Your task to perform on an android device: Add logitech g502 to the cart on costco.com, then select checkout. Image 0: 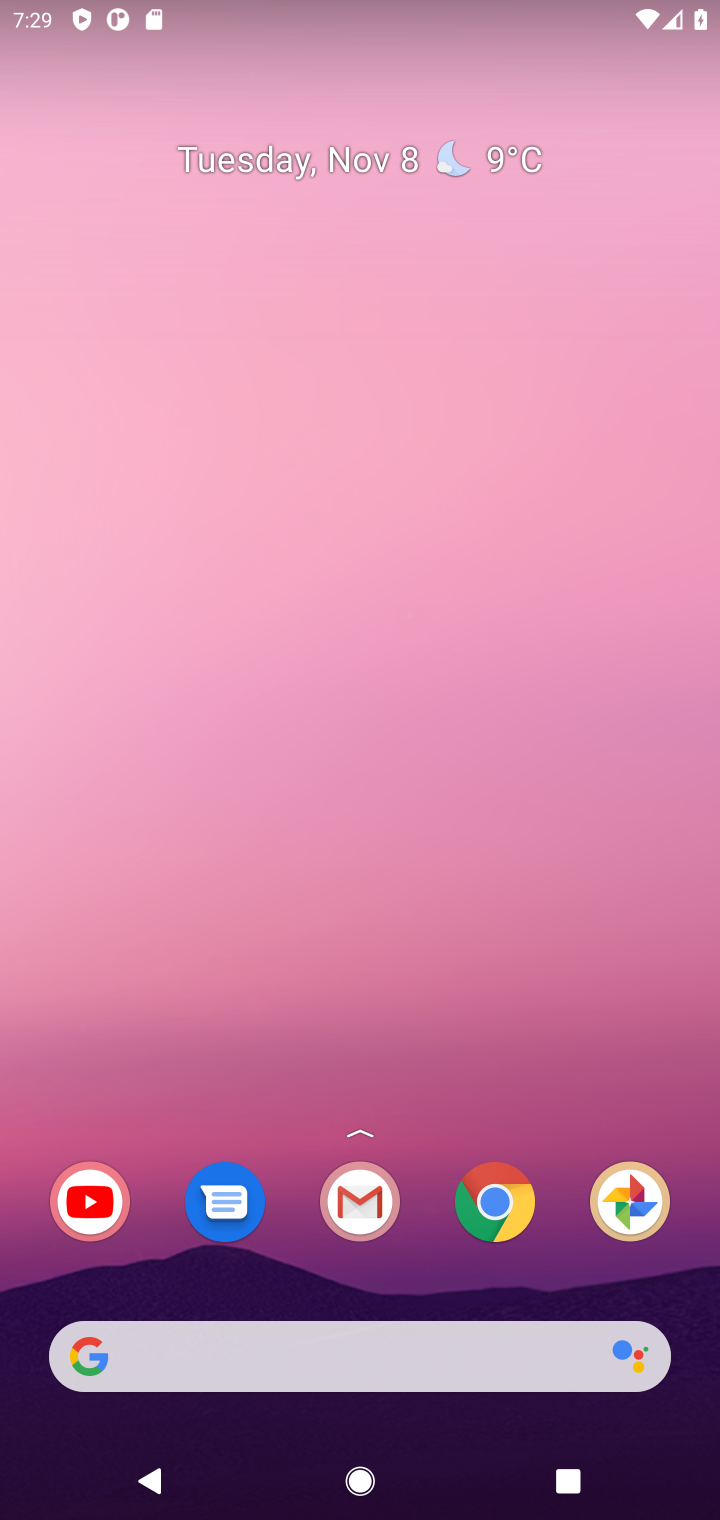
Step 0: click (379, 1354)
Your task to perform on an android device: Add logitech g502 to the cart on costco.com, then select checkout. Image 1: 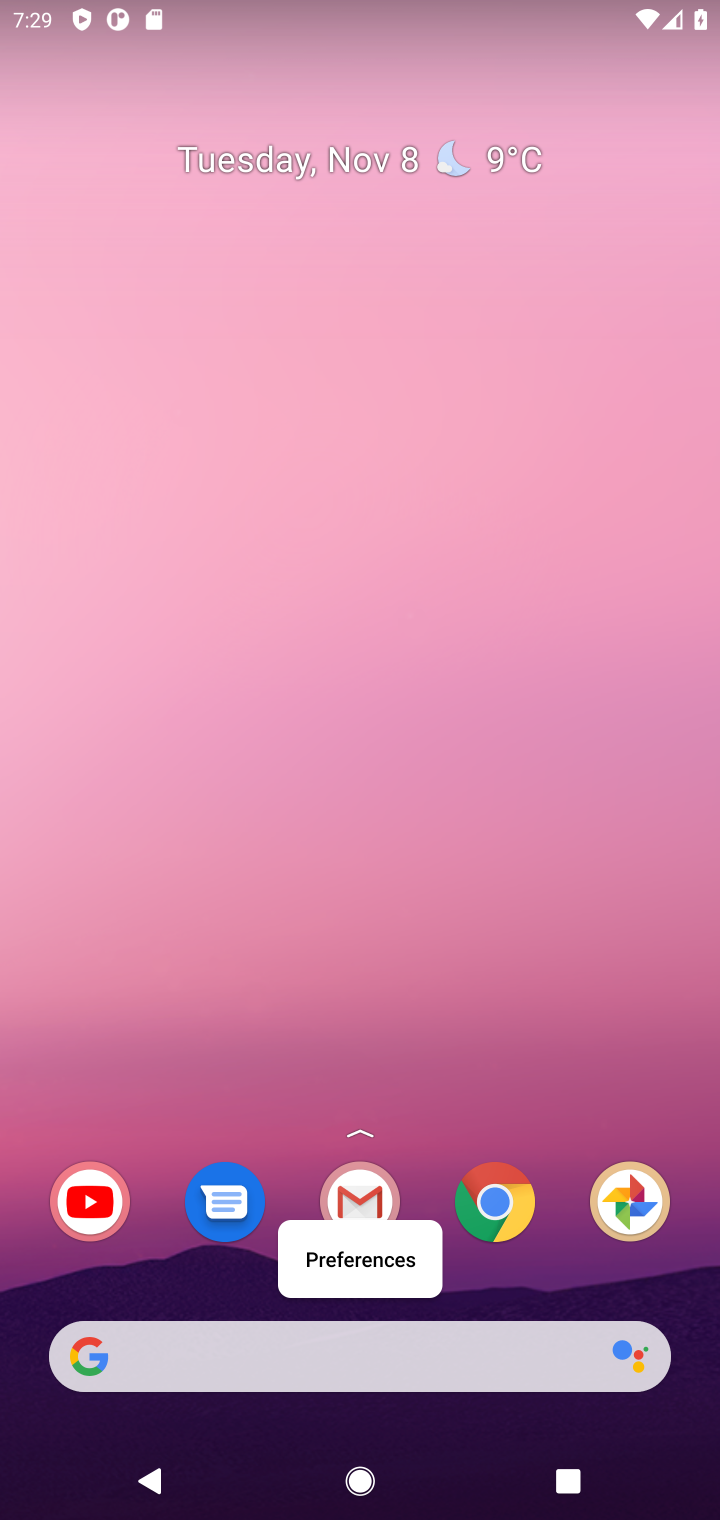
Step 1: click (381, 1359)
Your task to perform on an android device: Add logitech g502 to the cart on costco.com, then select checkout. Image 2: 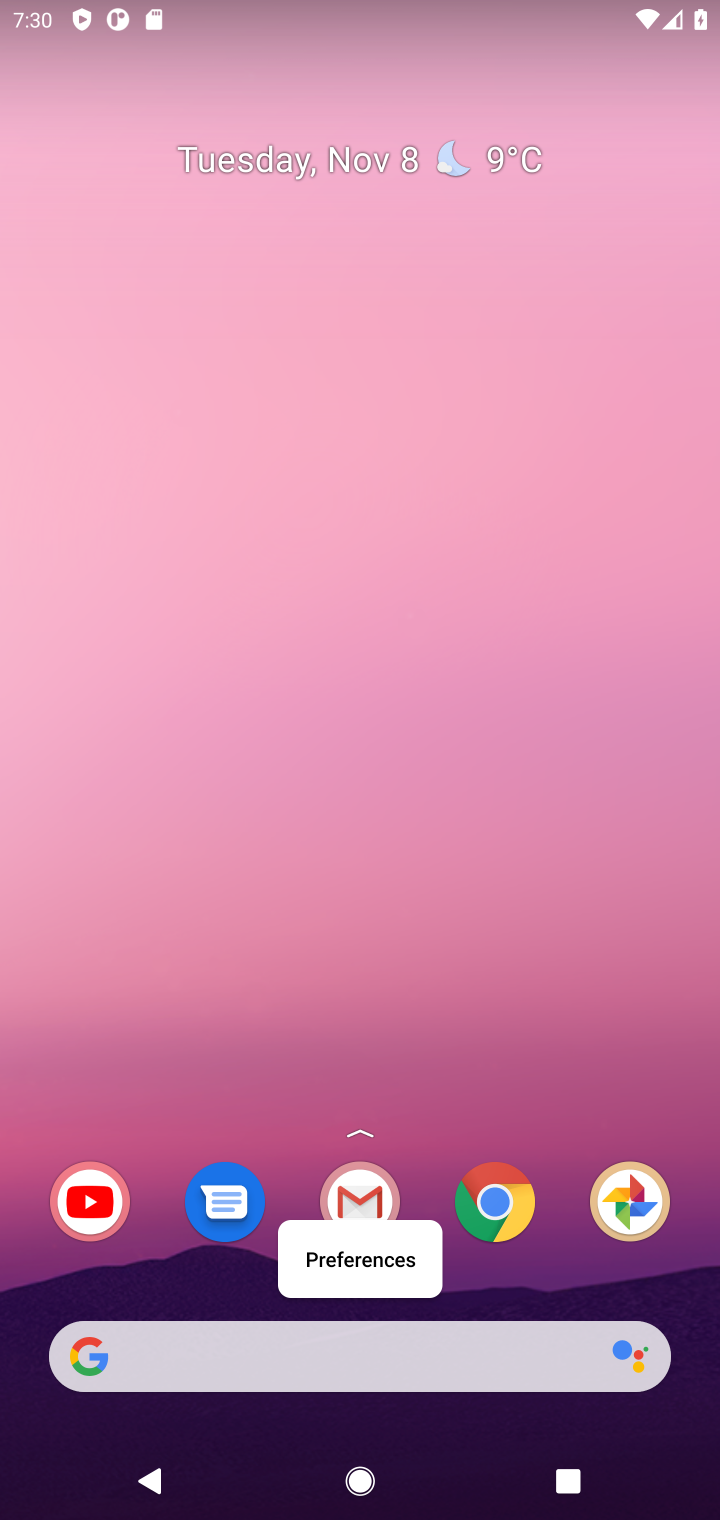
Step 2: click (538, 1359)
Your task to perform on an android device: Add logitech g502 to the cart on costco.com, then select checkout. Image 3: 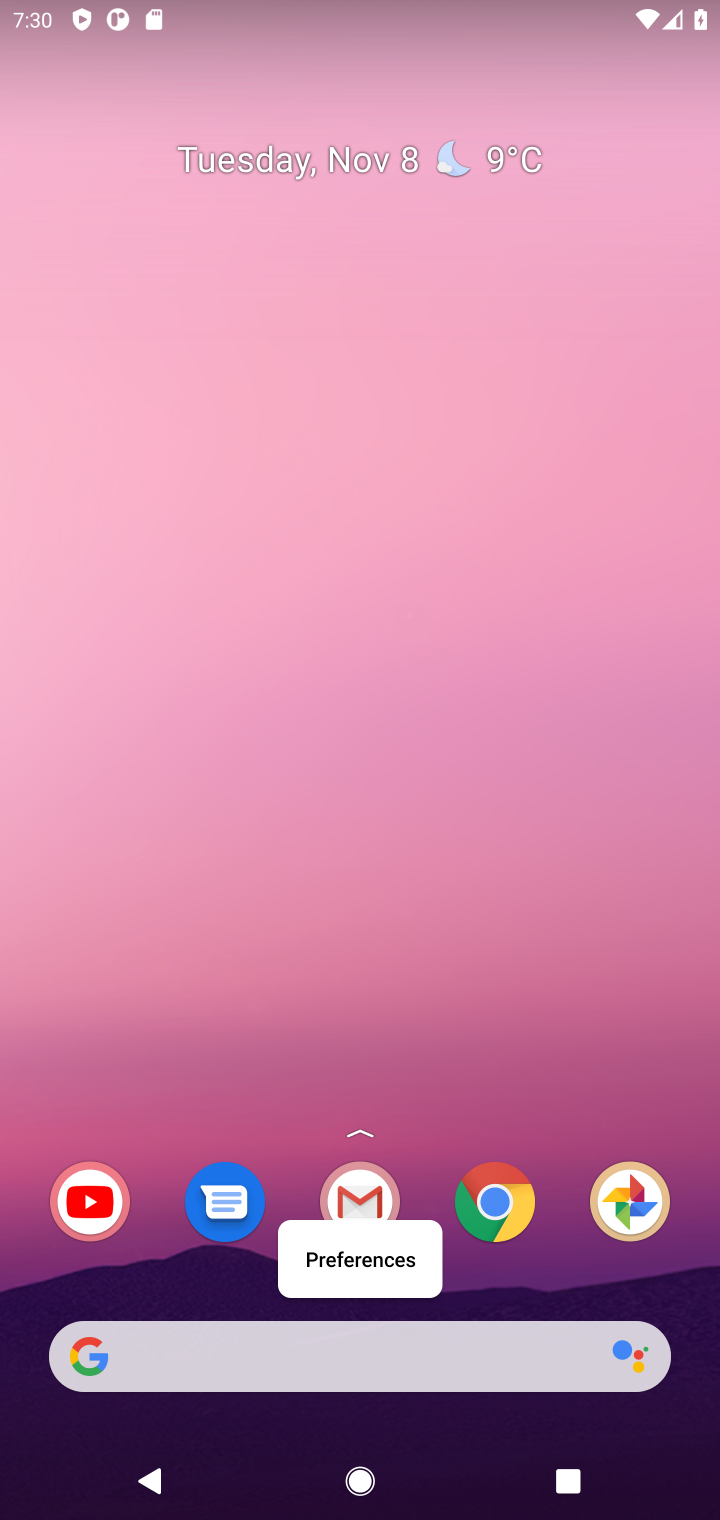
Step 3: click (232, 1368)
Your task to perform on an android device: Add logitech g502 to the cart on costco.com, then select checkout. Image 4: 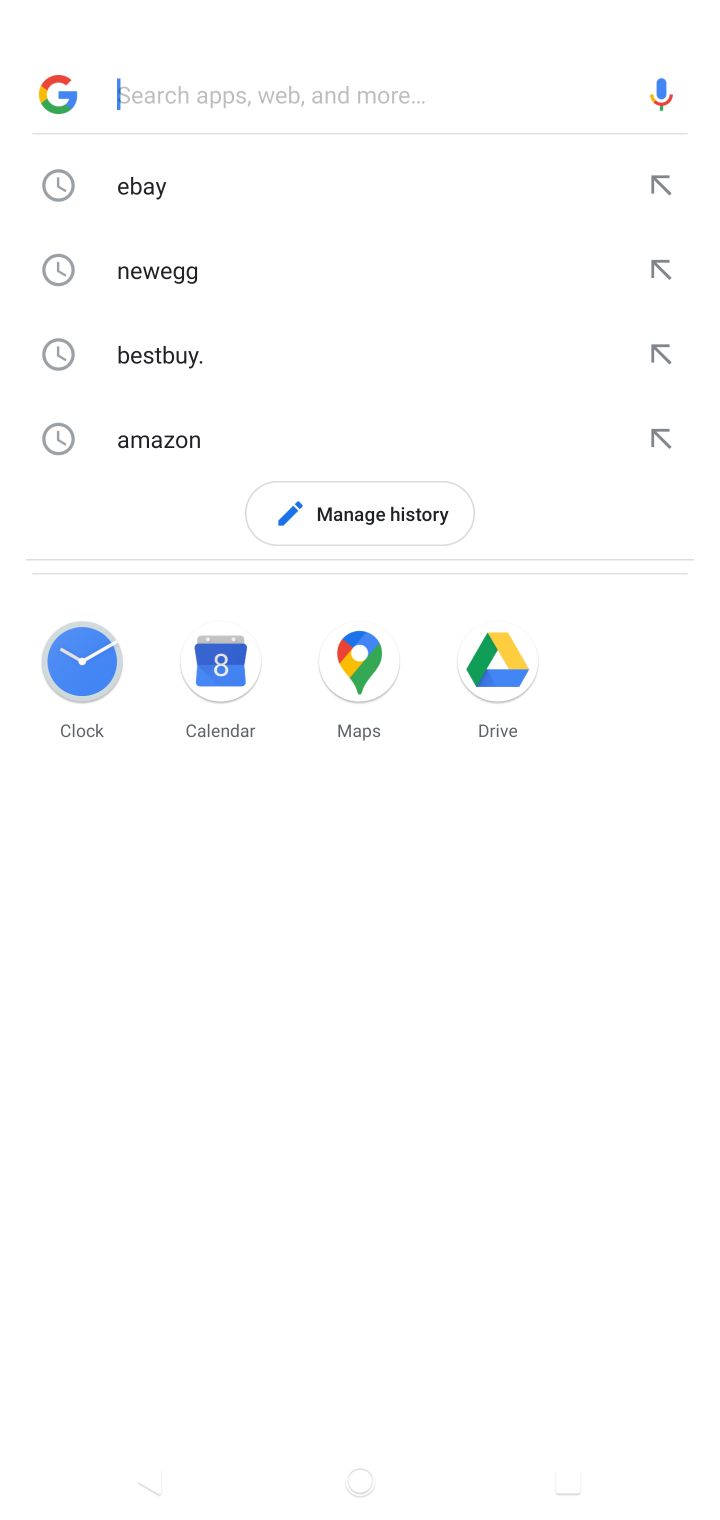
Step 4: click (232, 1368)
Your task to perform on an android device: Add logitech g502 to the cart on costco.com, then select checkout. Image 5: 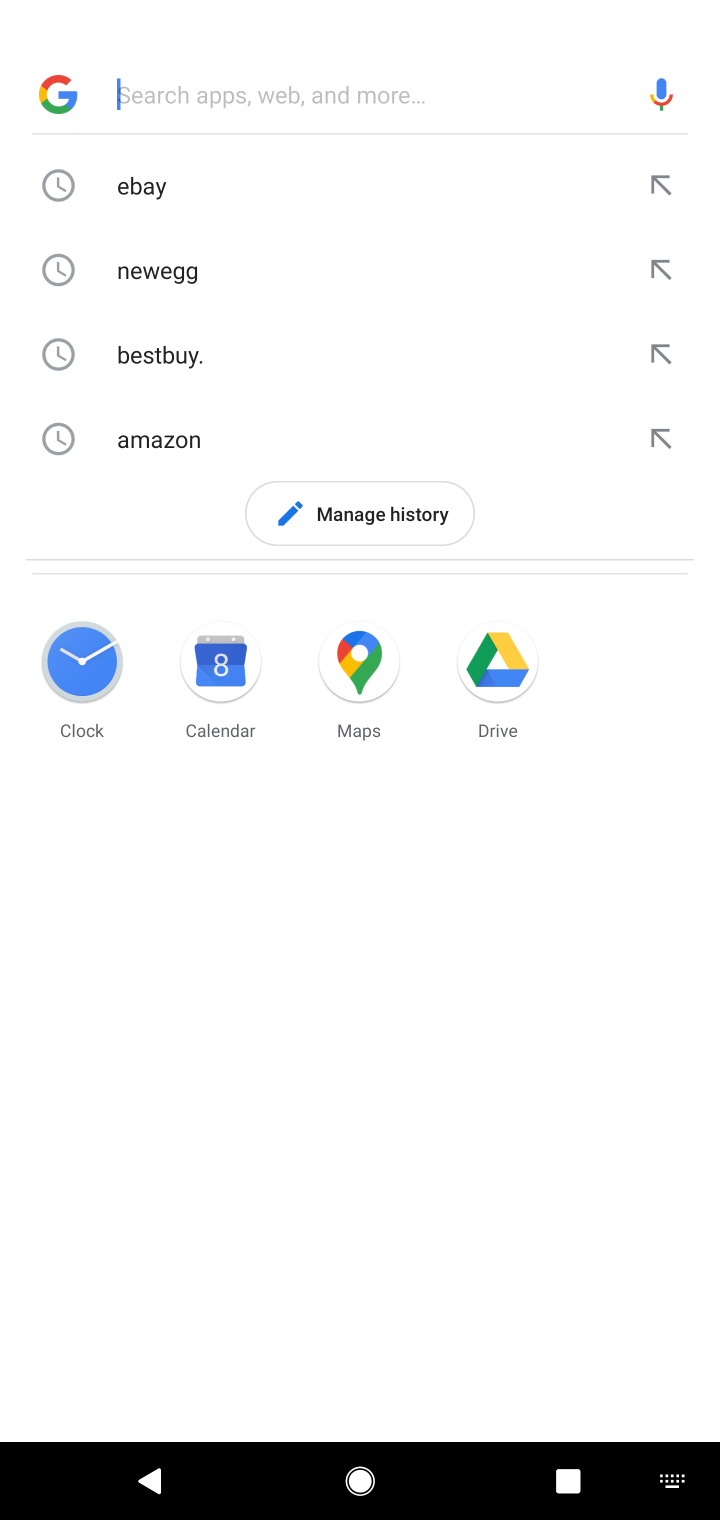
Step 5: type "costco.com"
Your task to perform on an android device: Add logitech g502 to the cart on costco.com, then select checkout. Image 6: 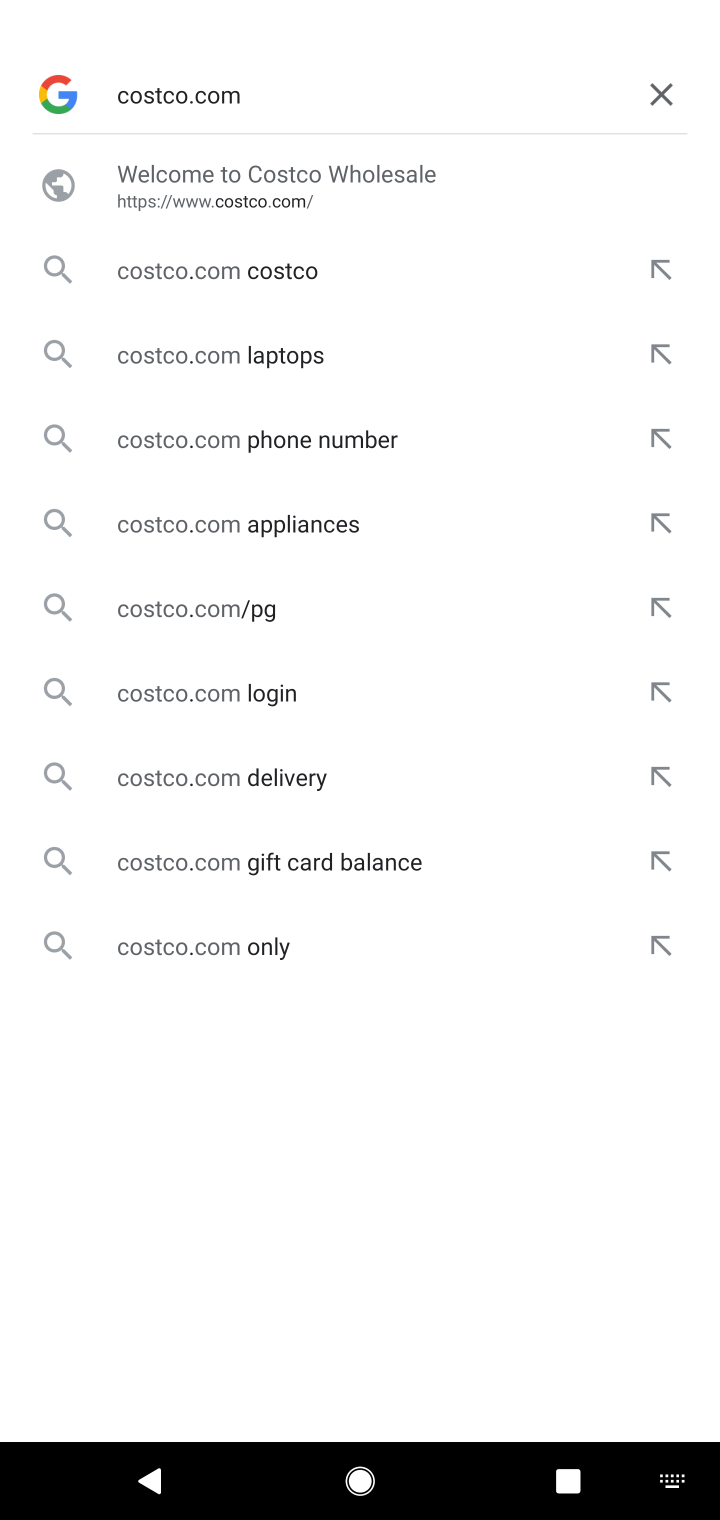
Step 6: type ""
Your task to perform on an android device: Add logitech g502 to the cart on costco.com, then select checkout. Image 7: 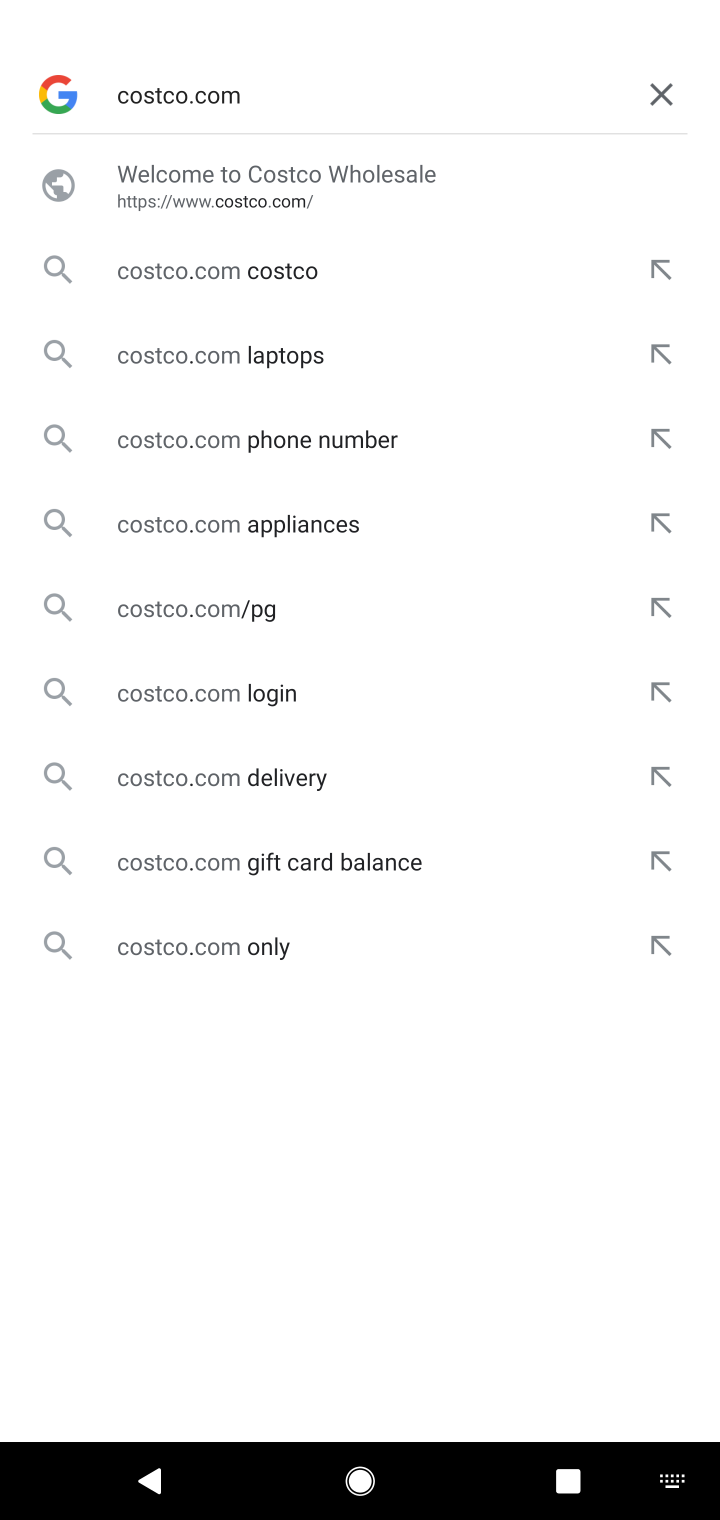
Step 7: press enter
Your task to perform on an android device: Add logitech g502 to the cart on costco.com, then select checkout. Image 8: 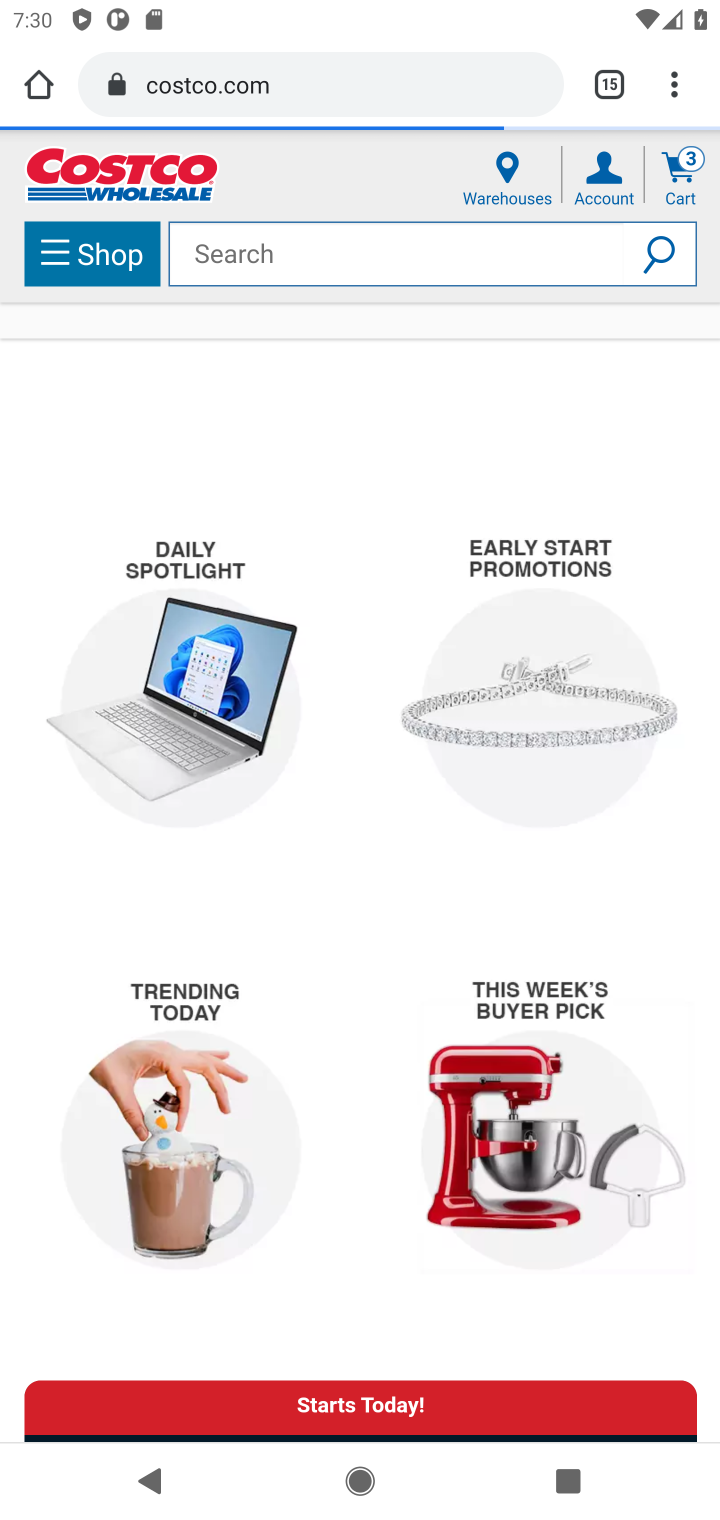
Step 8: click (305, 255)
Your task to perform on an android device: Add logitech g502 to the cart on costco.com, then select checkout. Image 9: 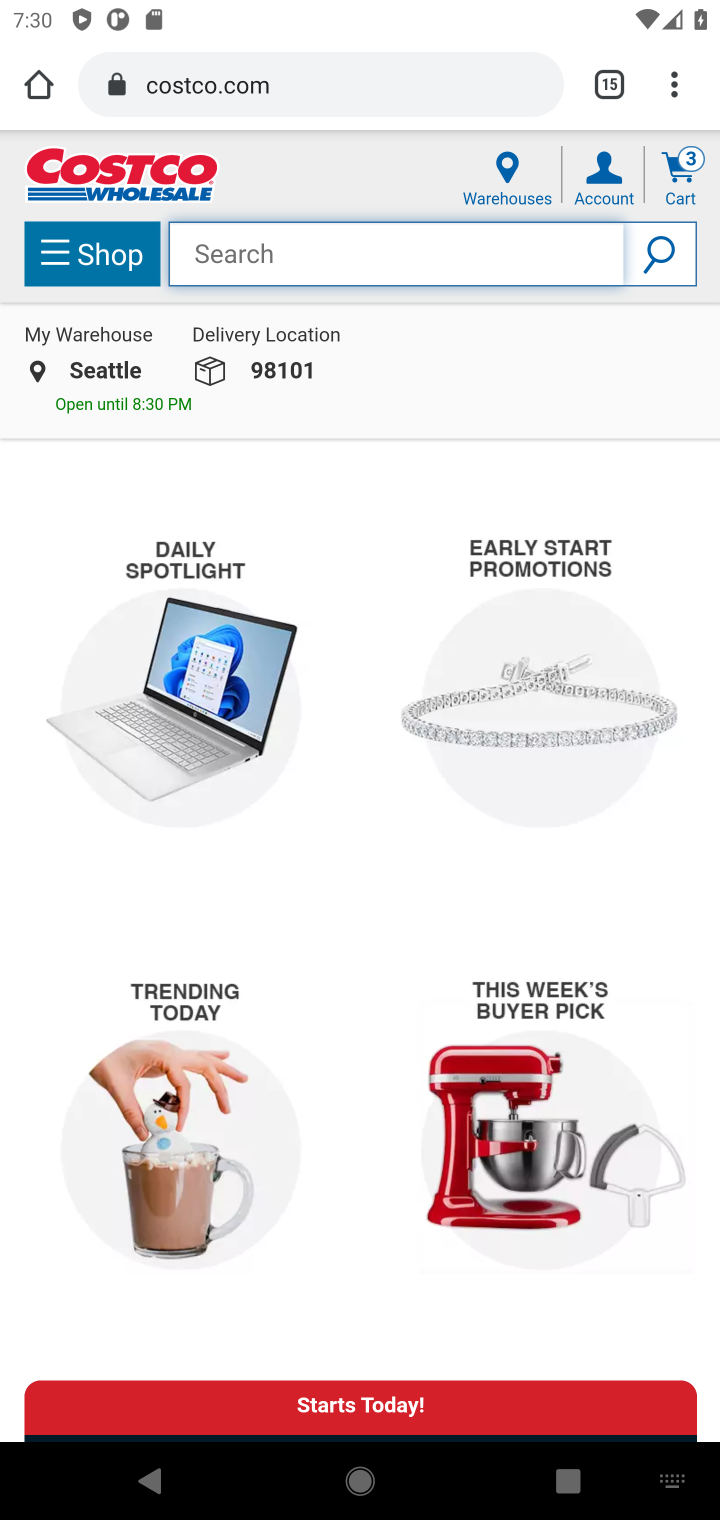
Step 9: drag from (358, 1185) to (369, 192)
Your task to perform on an android device: Add logitech g502 to the cart on costco.com, then select checkout. Image 10: 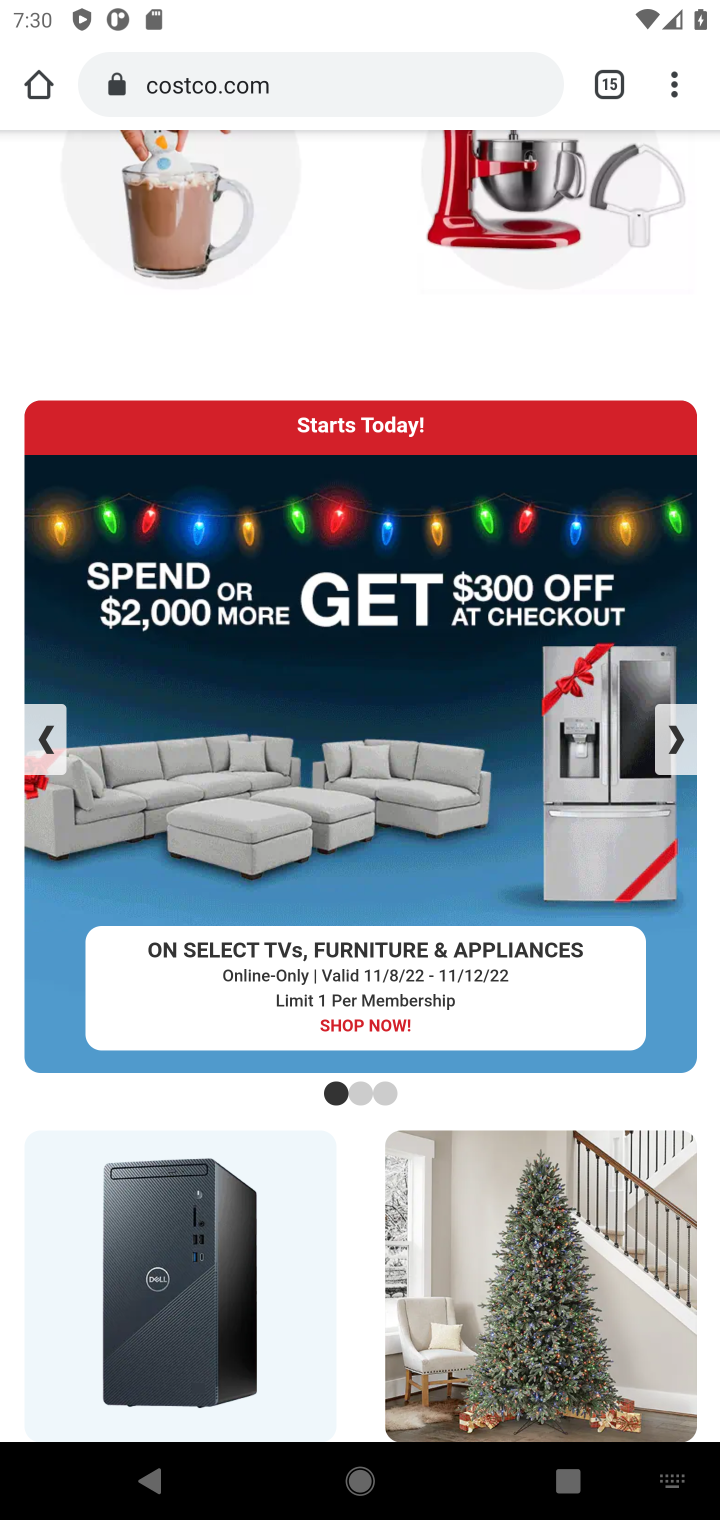
Step 10: drag from (11, 1174) to (12, 441)
Your task to perform on an android device: Add logitech g502 to the cart on costco.com, then select checkout. Image 11: 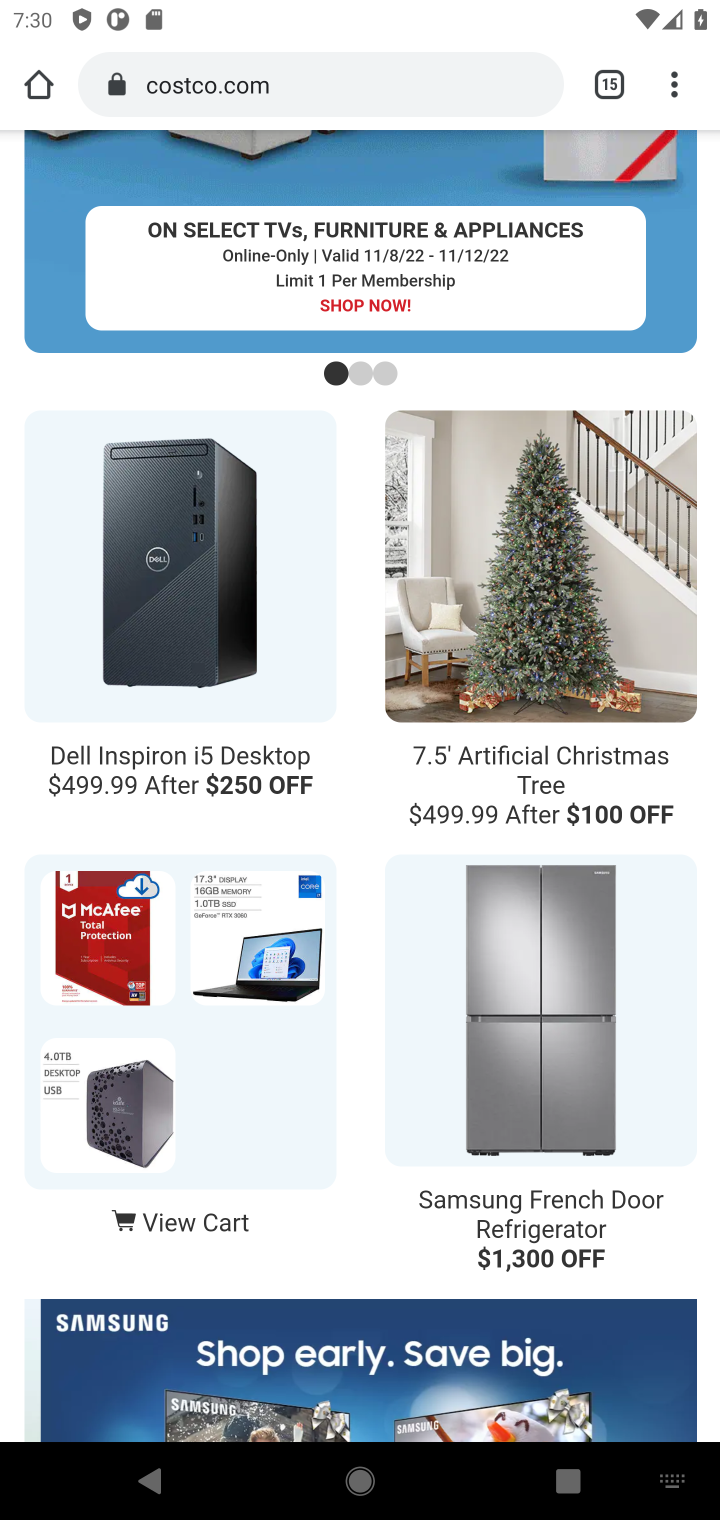
Step 11: drag from (338, 390) to (335, 1347)
Your task to perform on an android device: Add logitech g502 to the cart on costco.com, then select checkout. Image 12: 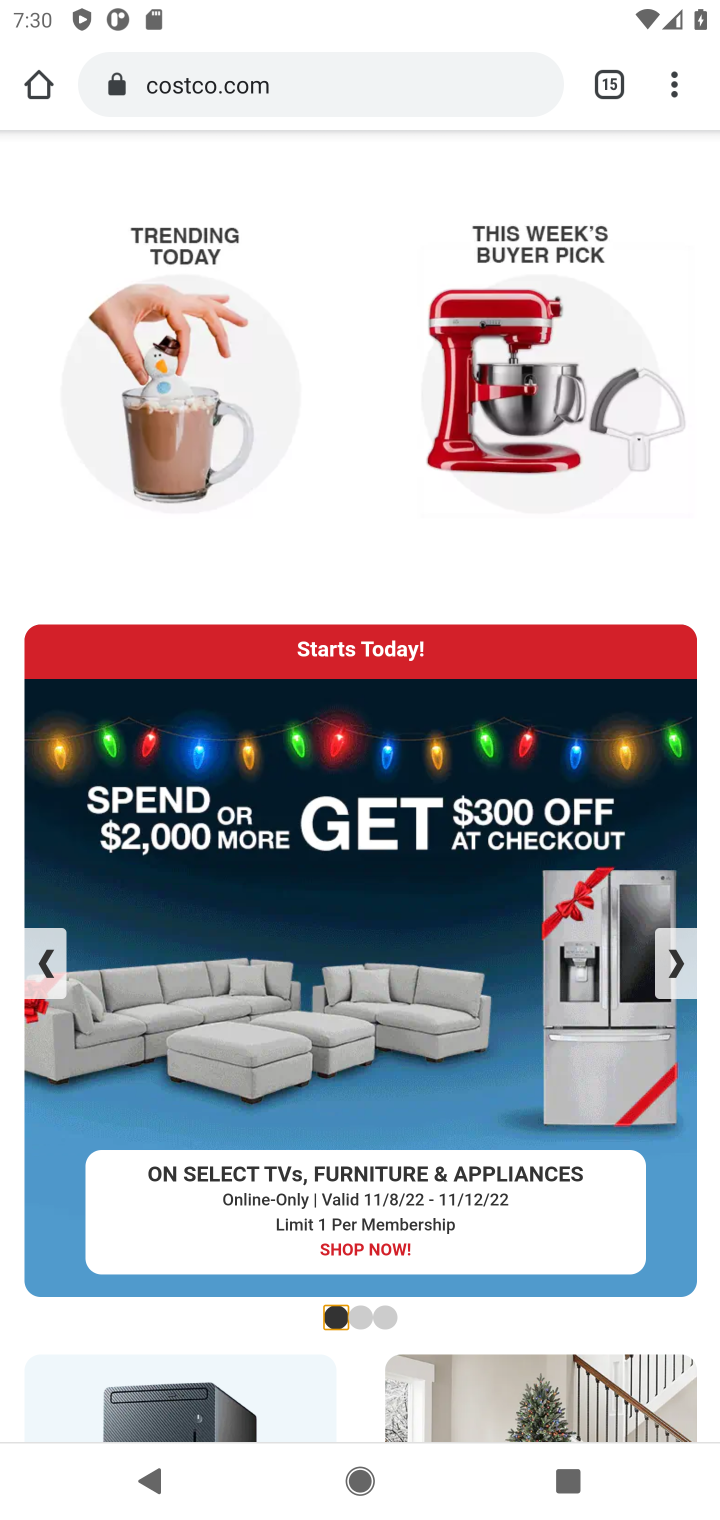
Step 12: drag from (315, 305) to (393, 1389)
Your task to perform on an android device: Add logitech g502 to the cart on costco.com, then select checkout. Image 13: 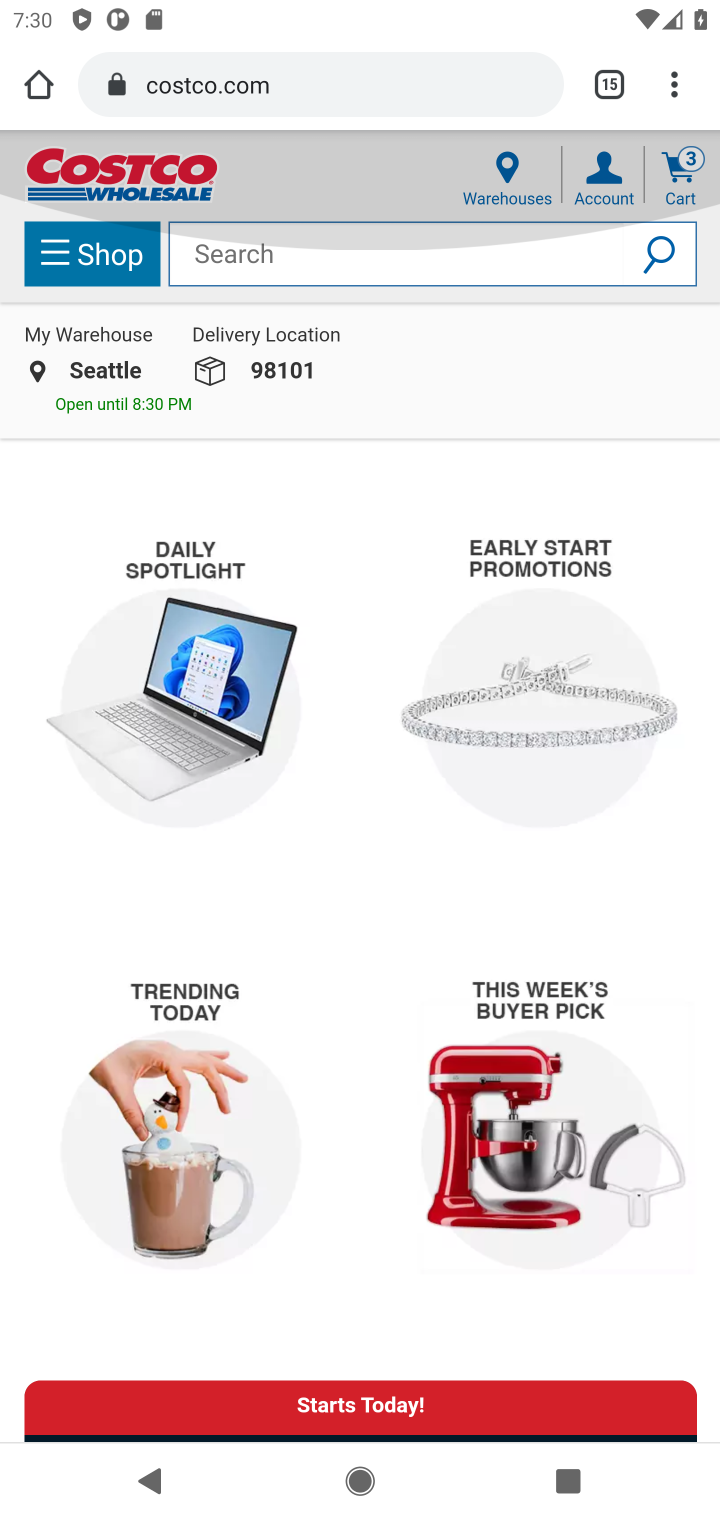
Step 13: click (350, 235)
Your task to perform on an android device: Add logitech g502 to the cart on costco.com, then select checkout. Image 14: 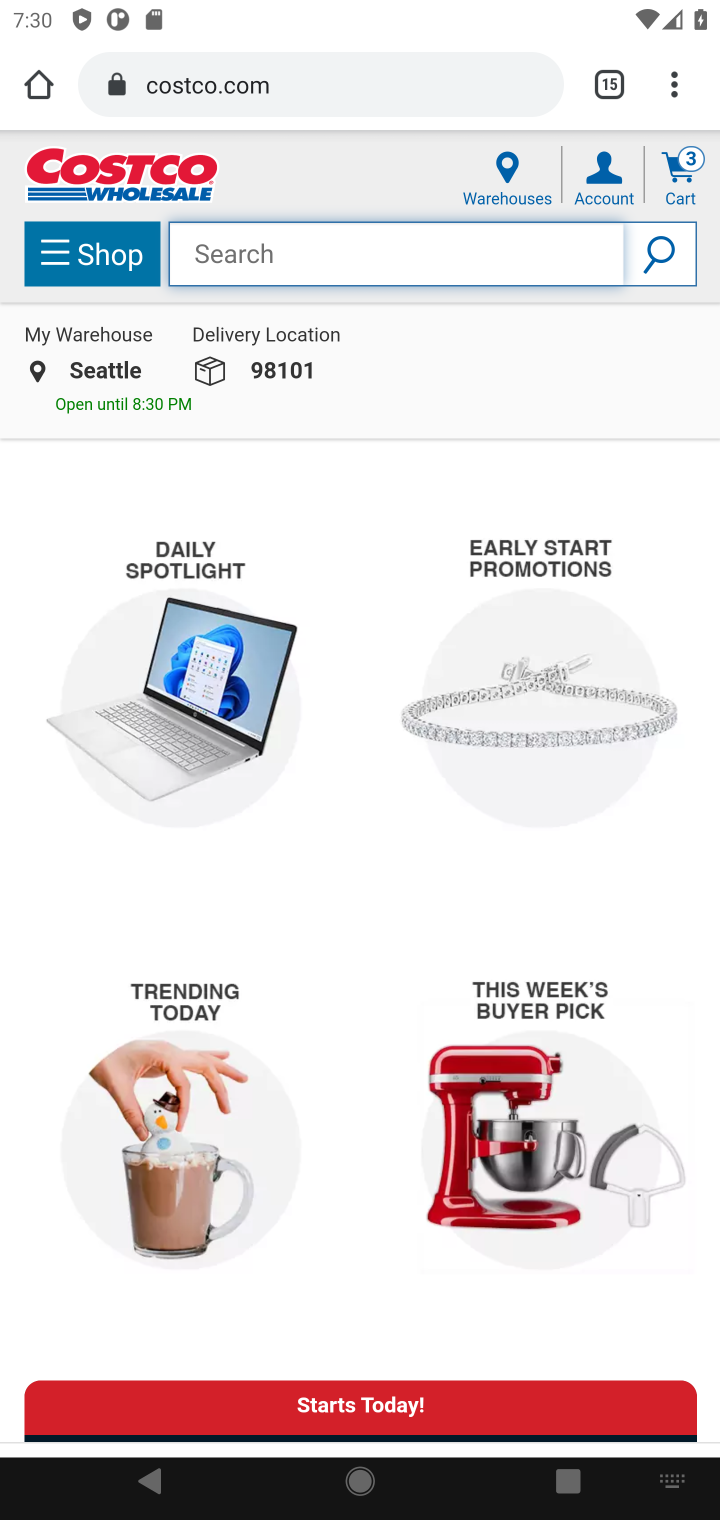
Step 14: click (350, 219)
Your task to perform on an android device: Add logitech g502 to the cart on costco.com, then select checkout. Image 15: 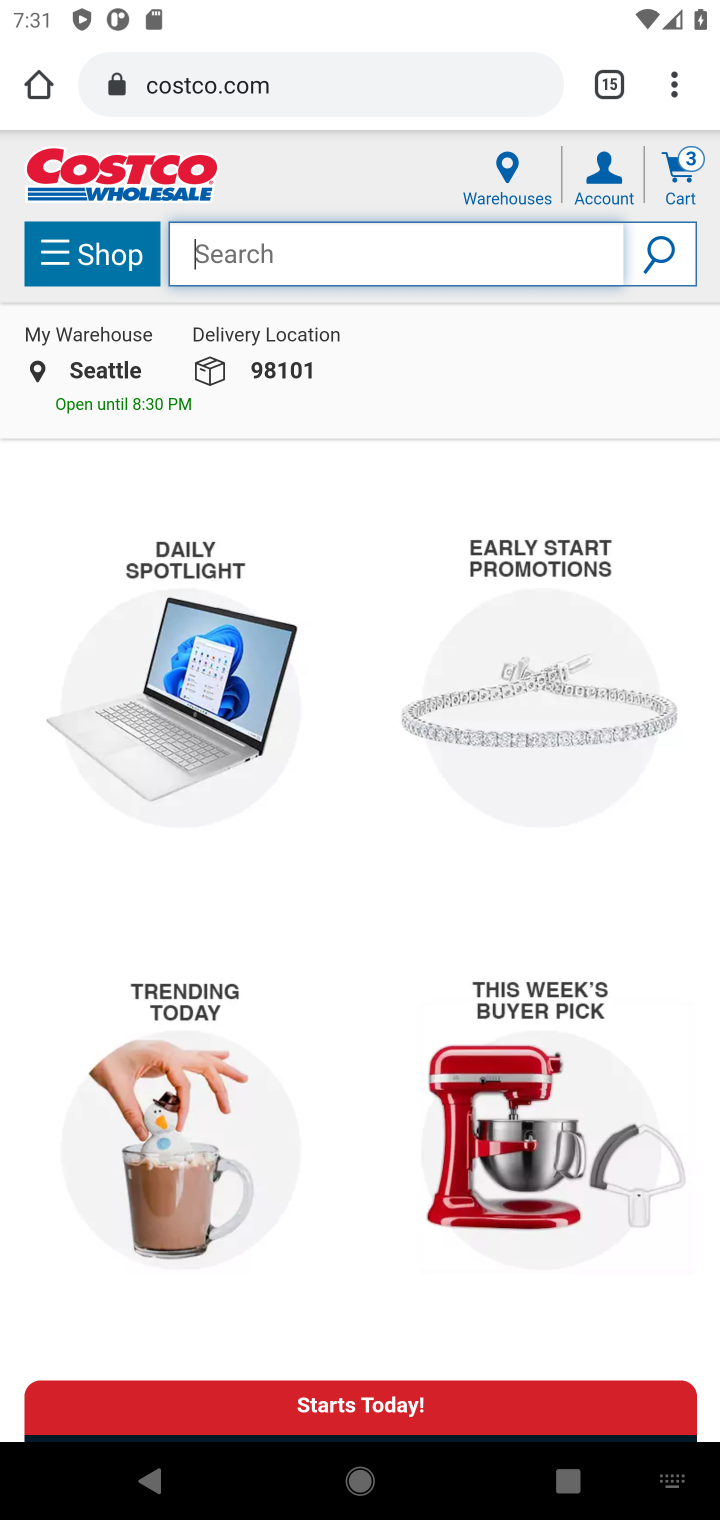
Step 15: click (340, 245)
Your task to perform on an android device: Add logitech g502 to the cart on costco.com, then select checkout. Image 16: 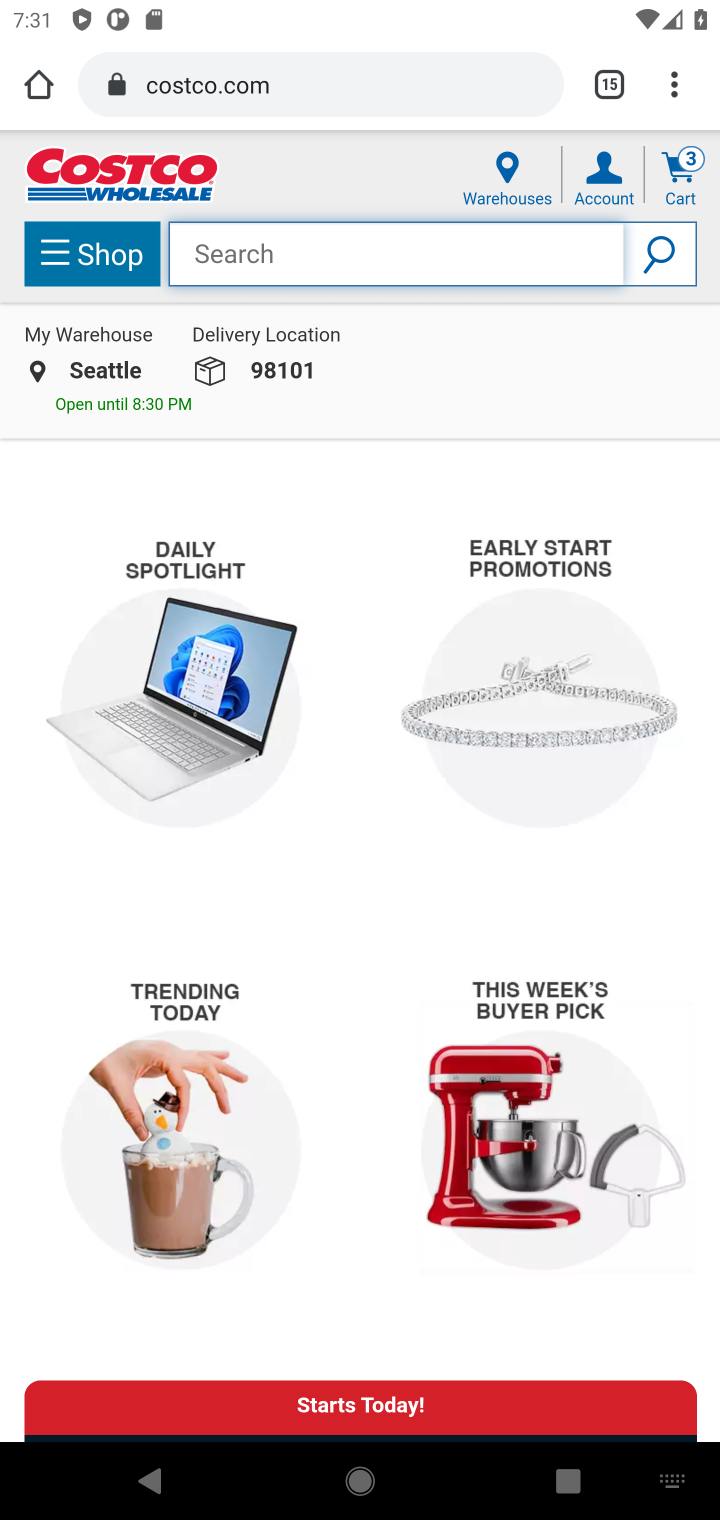
Step 16: type " logitech g502 "
Your task to perform on an android device: Add logitech g502 to the cart on costco.com, then select checkout. Image 17: 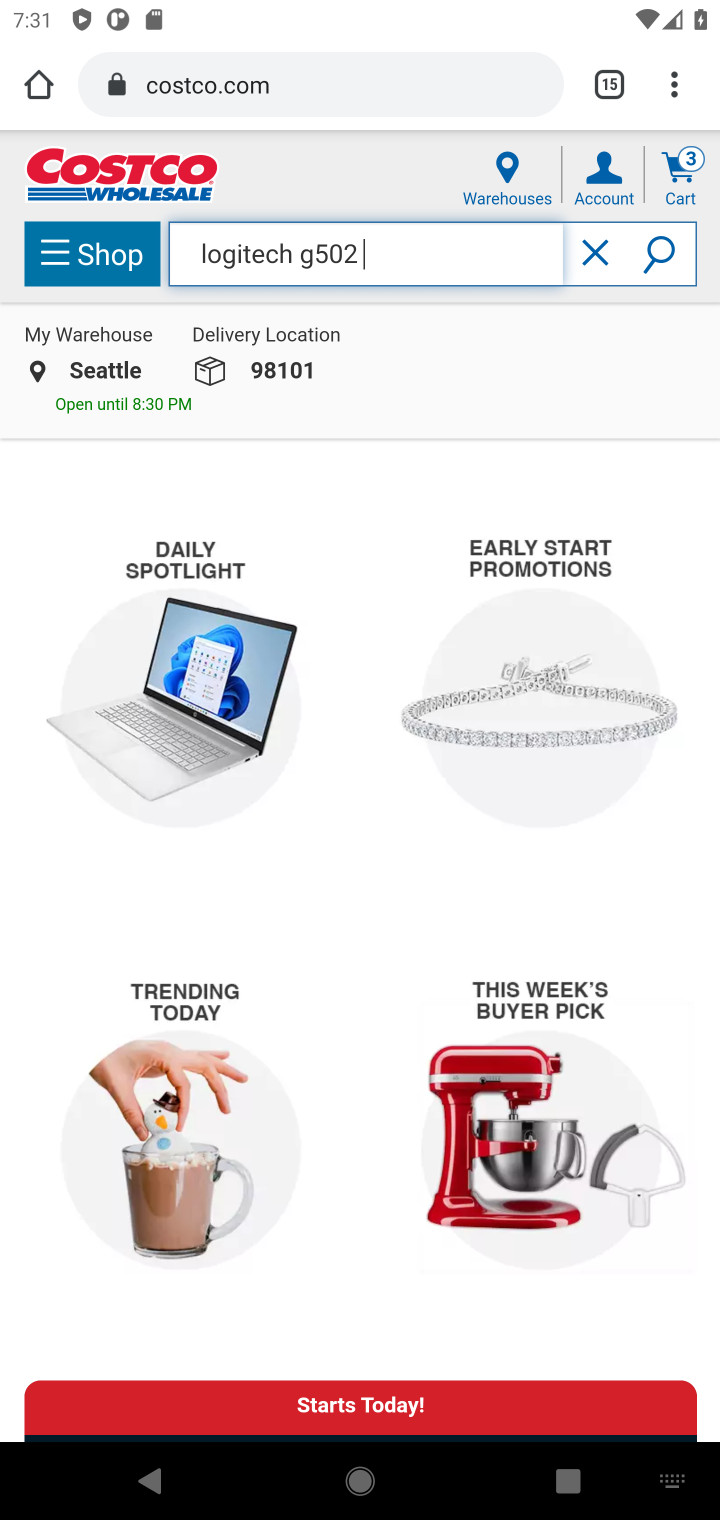
Step 17: type ""
Your task to perform on an android device: Add logitech g502 to the cart on costco.com, then select checkout. Image 18: 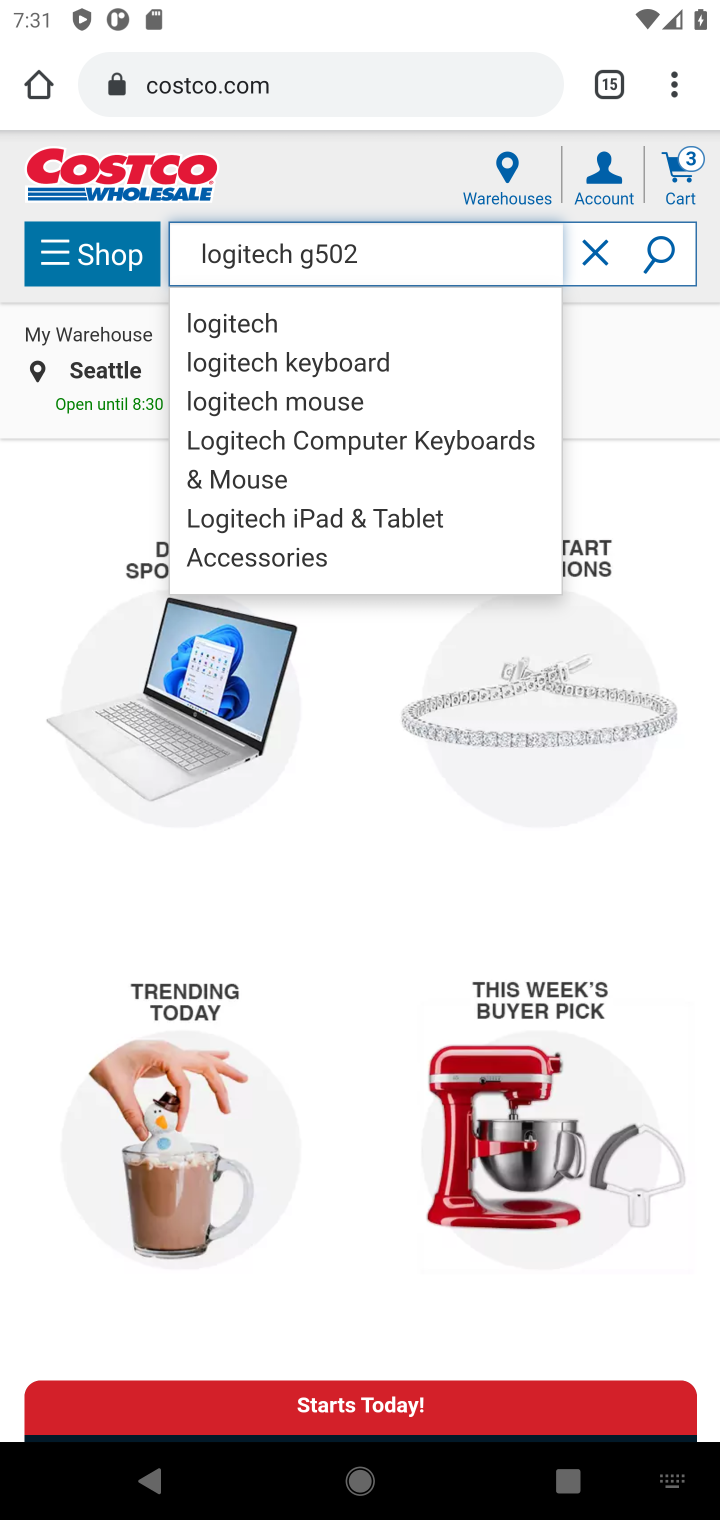
Step 18: press enter
Your task to perform on an android device: Add logitech g502 to the cart on costco.com, then select checkout. Image 19: 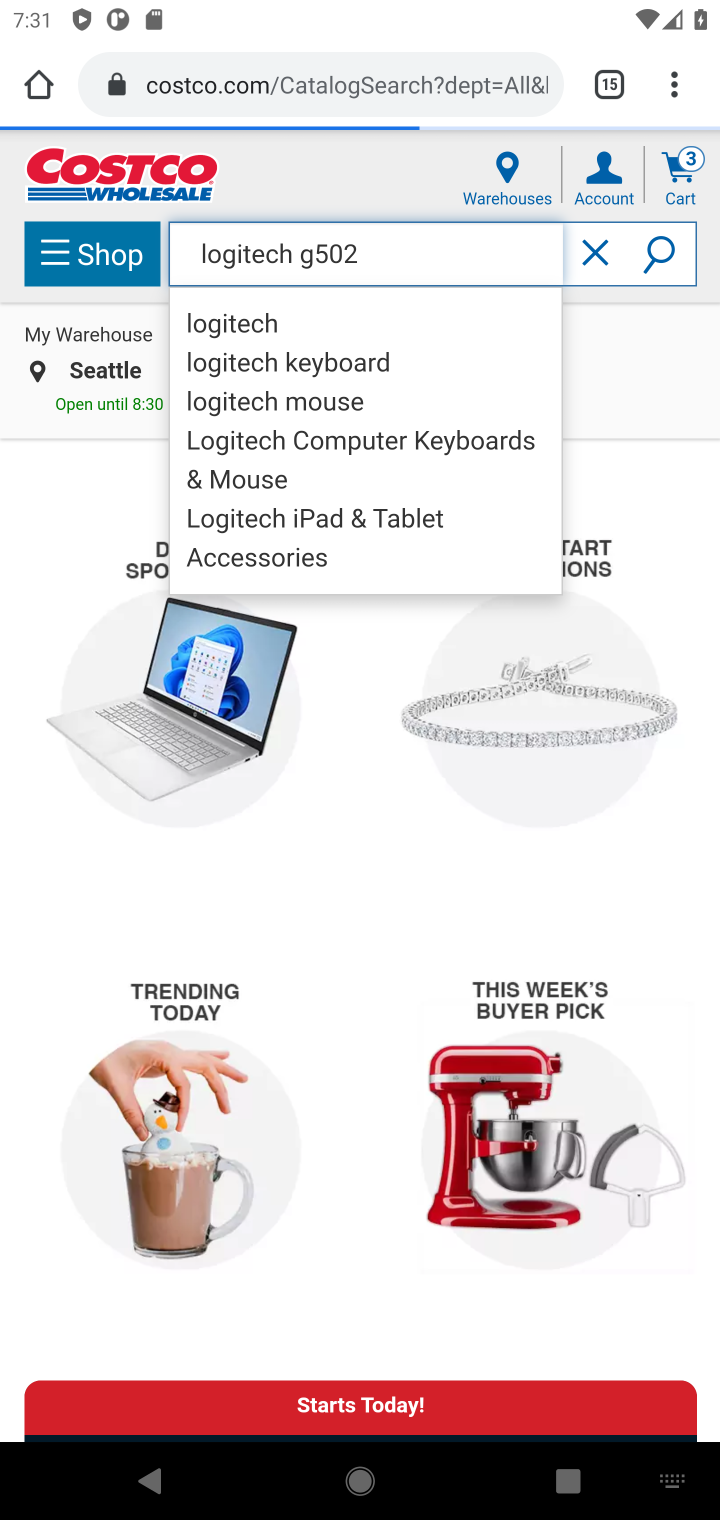
Step 19: press enter
Your task to perform on an android device: Add logitech g502 to the cart on costco.com, then select checkout. Image 20: 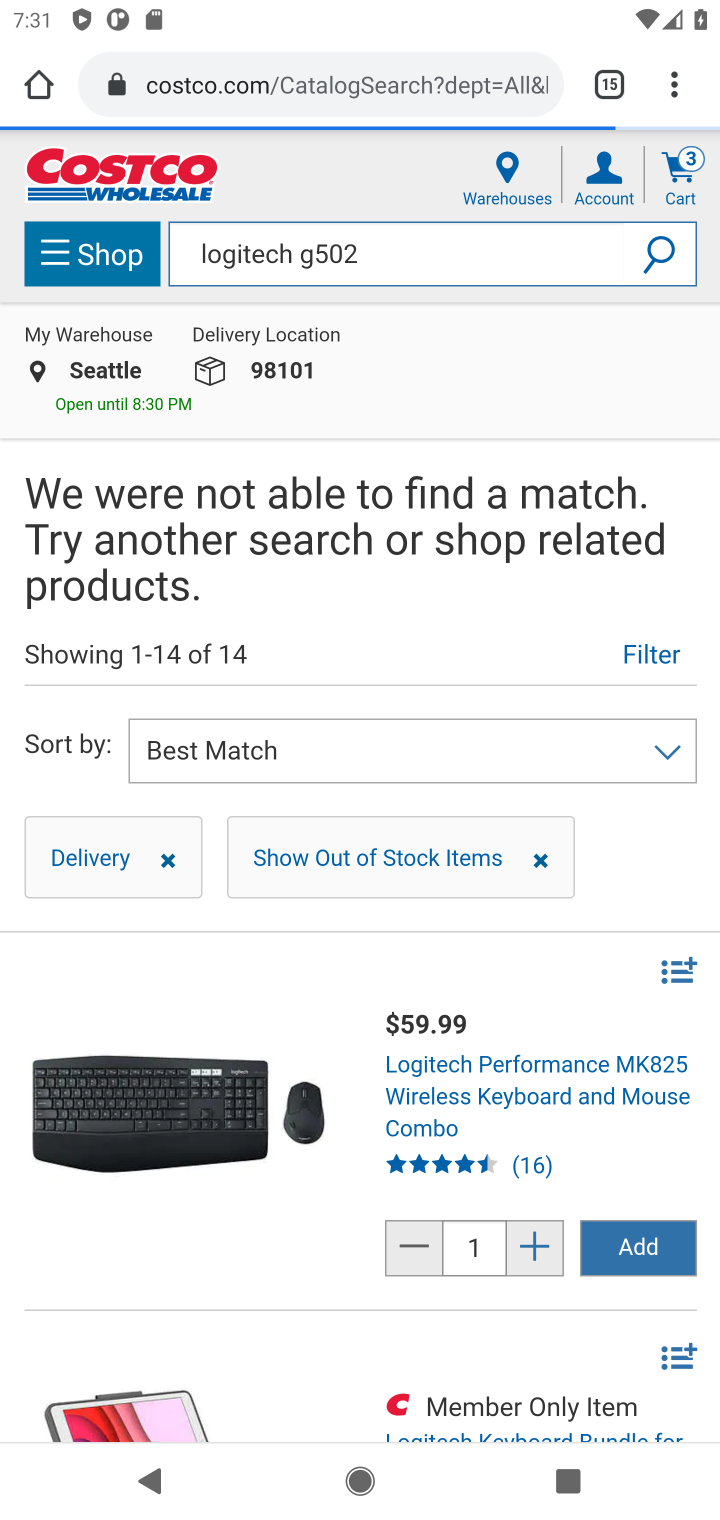
Step 20: click (650, 1246)
Your task to perform on an android device: Add logitech g502 to the cart on costco.com, then select checkout. Image 21: 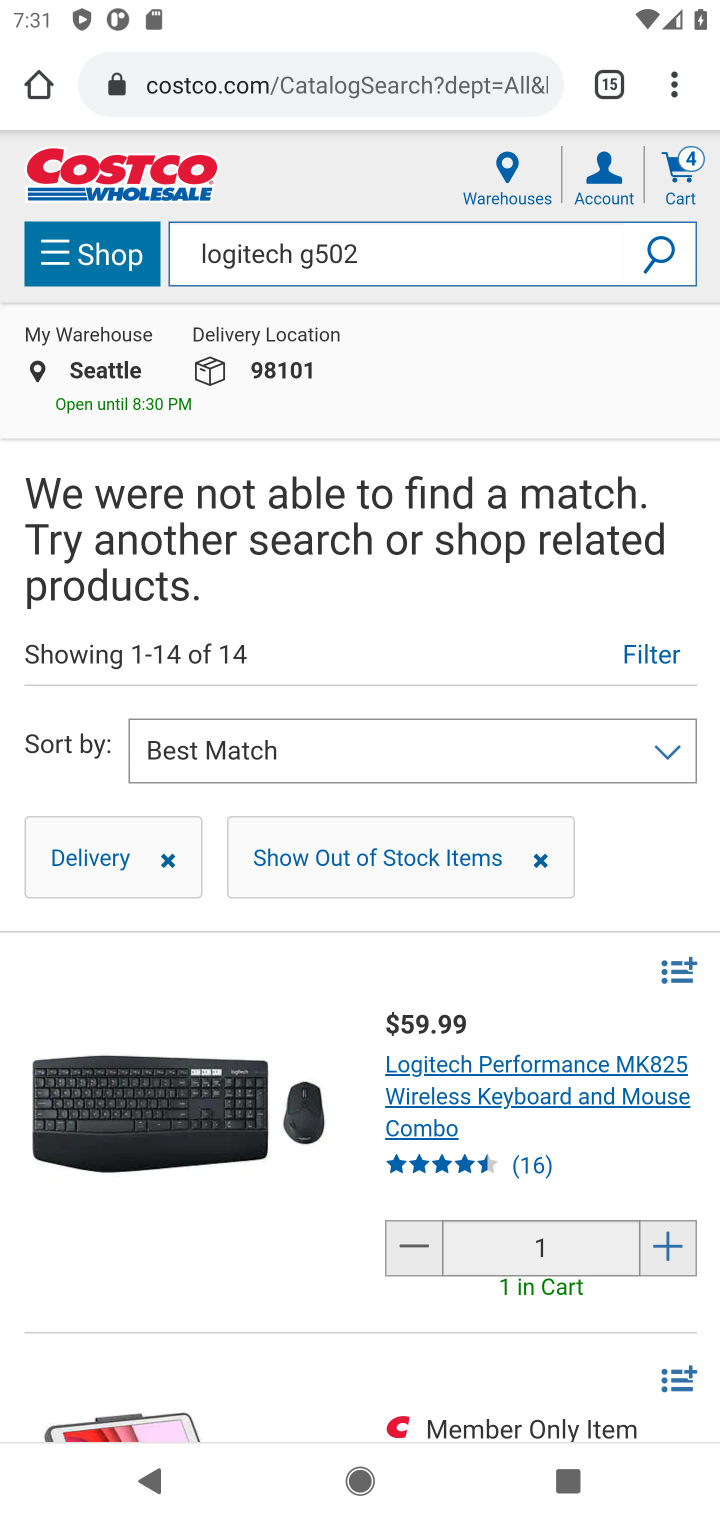
Step 21: task complete